Your task to perform on an android device: delete a single message in the gmail app Image 0: 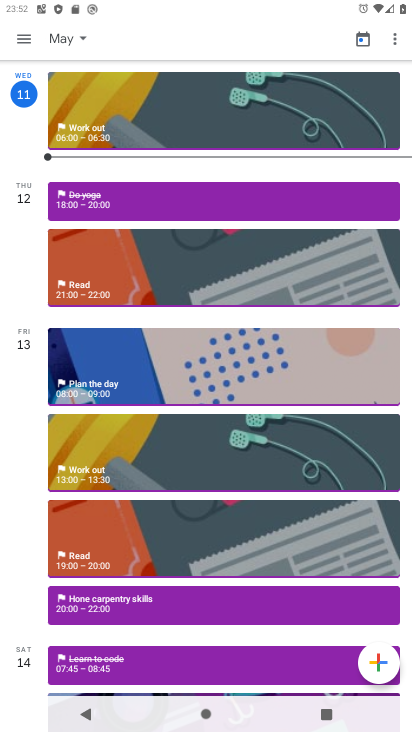
Step 0: press back button
Your task to perform on an android device: delete a single message in the gmail app Image 1: 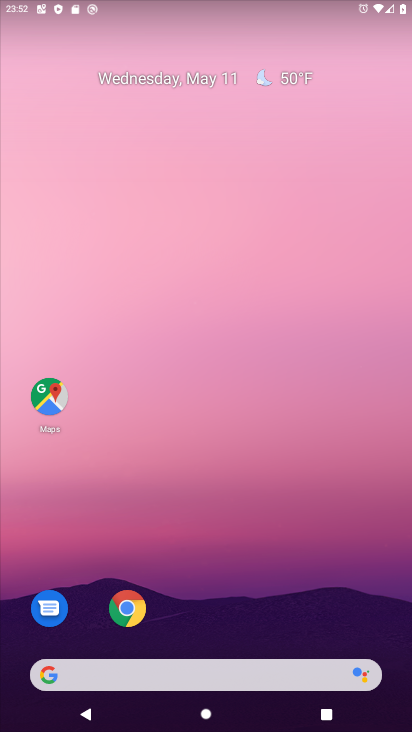
Step 1: drag from (247, 568) to (205, 73)
Your task to perform on an android device: delete a single message in the gmail app Image 2: 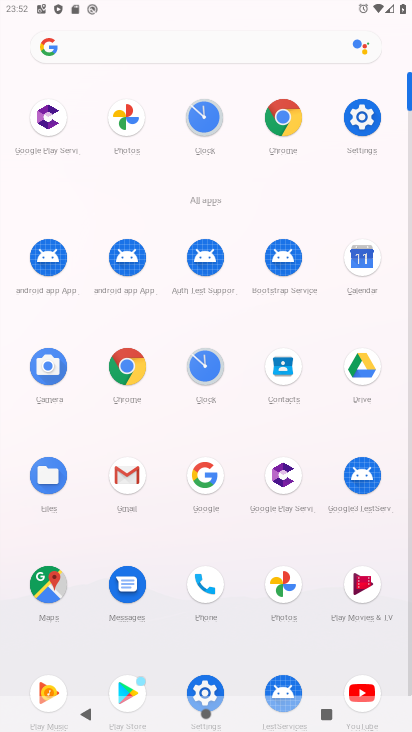
Step 2: click (123, 533)
Your task to perform on an android device: delete a single message in the gmail app Image 3: 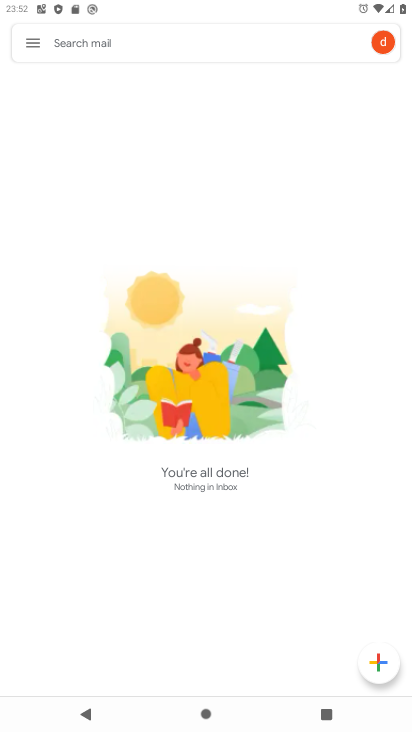
Step 3: click (34, 44)
Your task to perform on an android device: delete a single message in the gmail app Image 4: 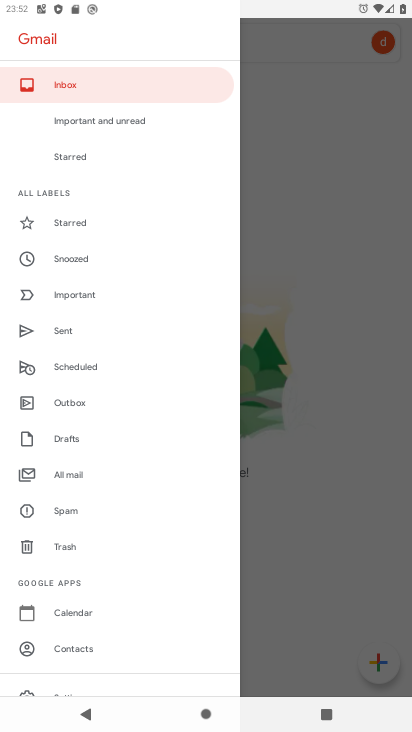
Step 4: click (59, 474)
Your task to perform on an android device: delete a single message in the gmail app Image 5: 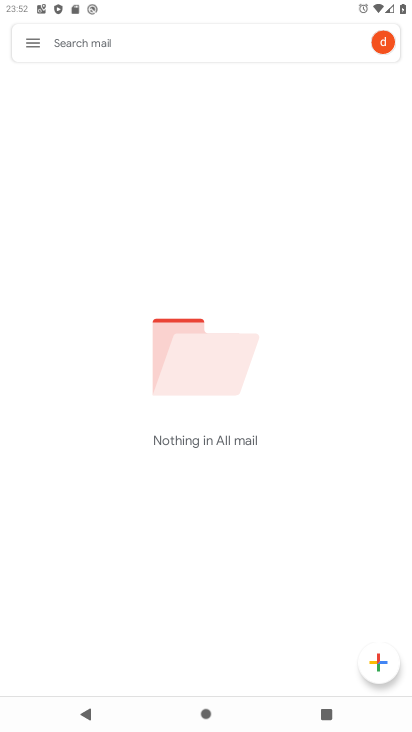
Step 5: click (32, 44)
Your task to perform on an android device: delete a single message in the gmail app Image 6: 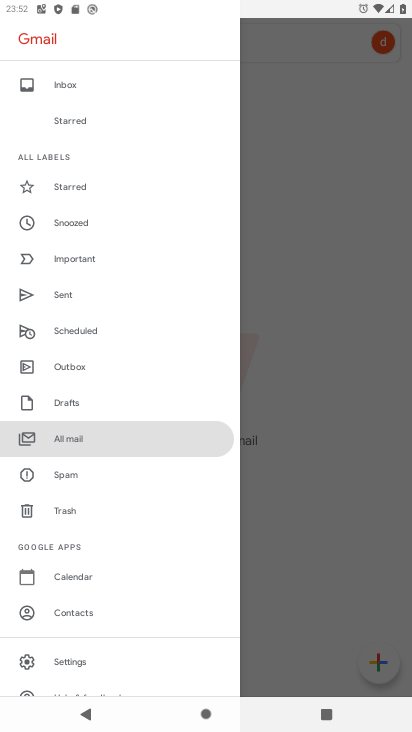
Step 6: task complete